Your task to perform on an android device: turn on priority inbox in the gmail app Image 0: 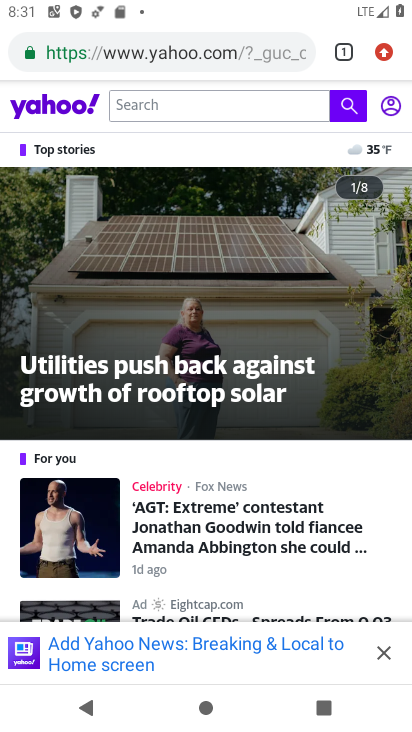
Step 0: press home button
Your task to perform on an android device: turn on priority inbox in the gmail app Image 1: 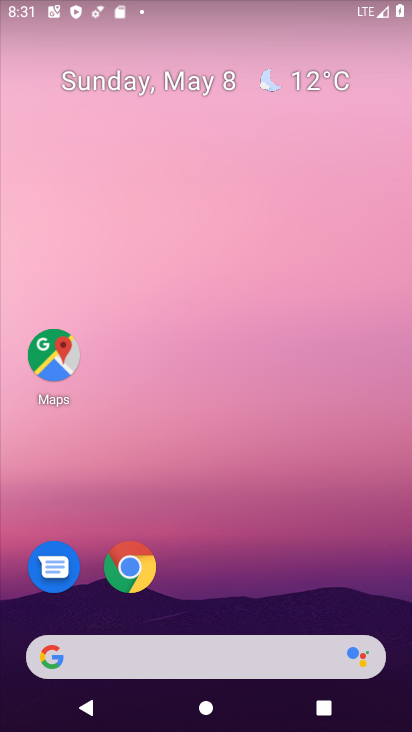
Step 1: drag from (165, 638) to (150, 82)
Your task to perform on an android device: turn on priority inbox in the gmail app Image 2: 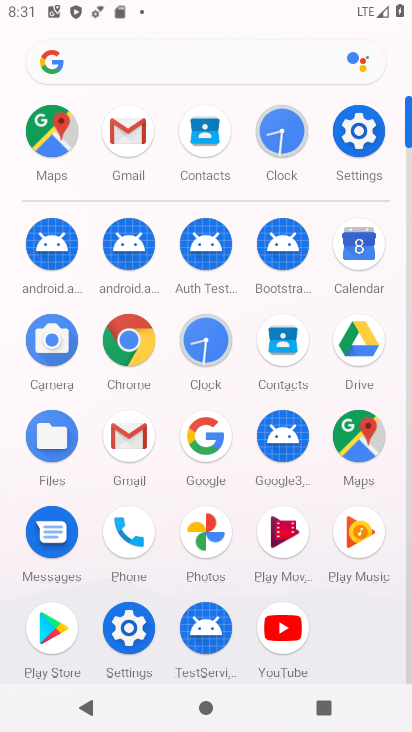
Step 2: click (128, 447)
Your task to perform on an android device: turn on priority inbox in the gmail app Image 3: 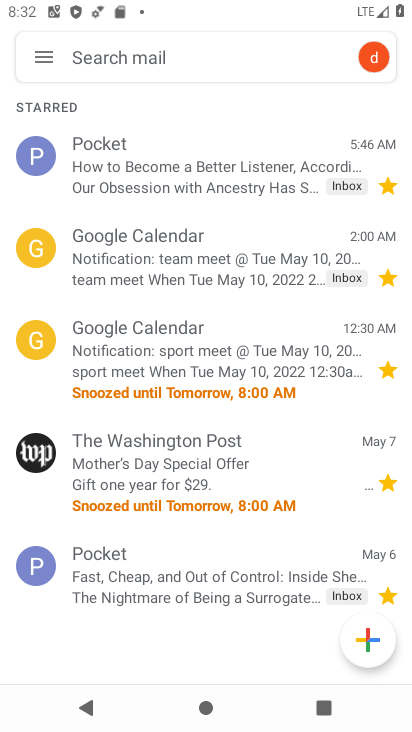
Step 3: click (34, 61)
Your task to perform on an android device: turn on priority inbox in the gmail app Image 4: 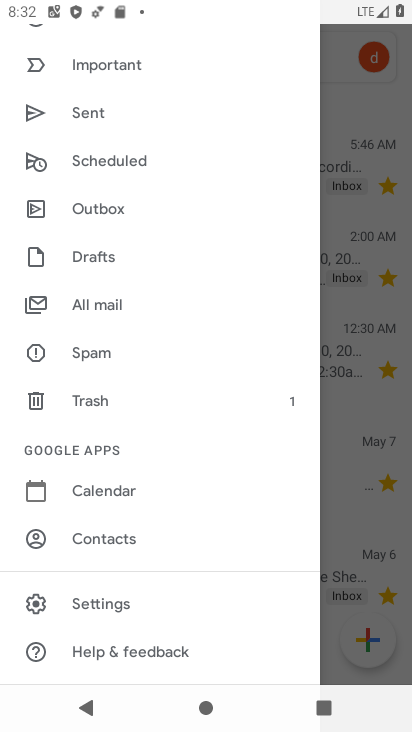
Step 4: click (116, 599)
Your task to perform on an android device: turn on priority inbox in the gmail app Image 5: 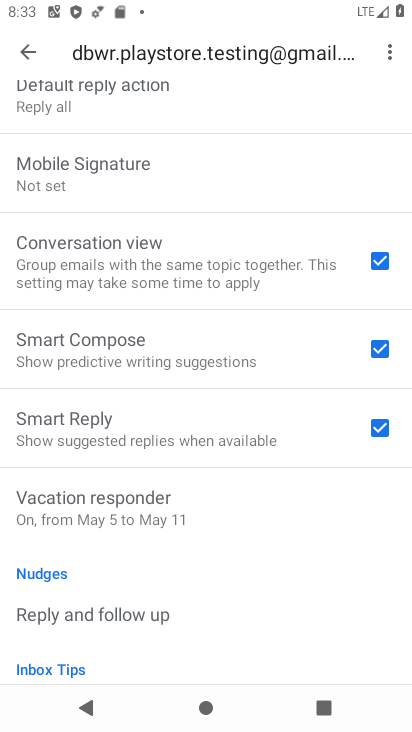
Step 5: drag from (192, 193) to (190, 634)
Your task to perform on an android device: turn on priority inbox in the gmail app Image 6: 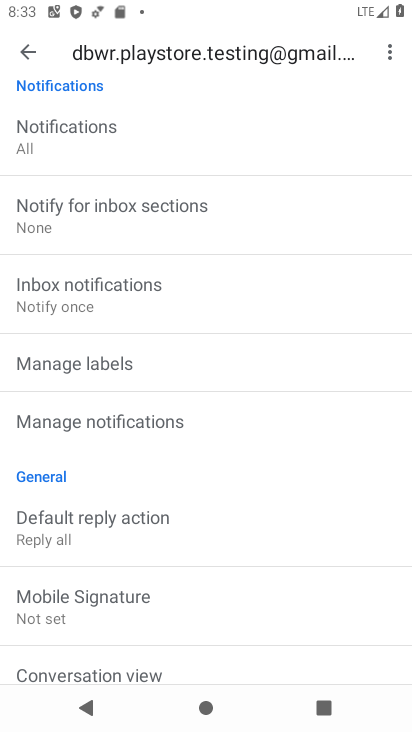
Step 6: drag from (89, 123) to (78, 520)
Your task to perform on an android device: turn on priority inbox in the gmail app Image 7: 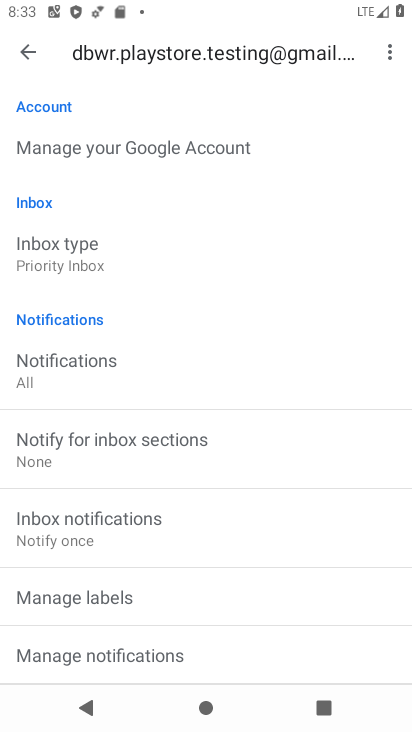
Step 7: click (57, 260)
Your task to perform on an android device: turn on priority inbox in the gmail app Image 8: 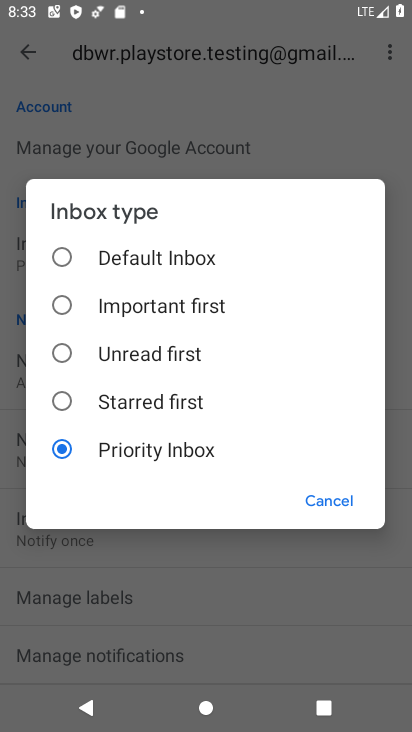
Step 8: click (153, 460)
Your task to perform on an android device: turn on priority inbox in the gmail app Image 9: 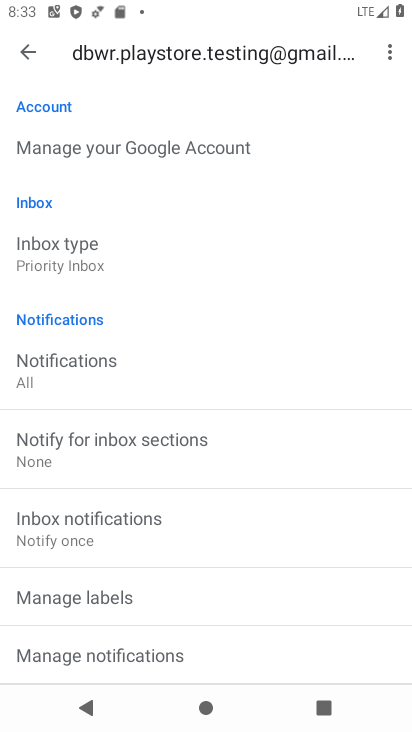
Step 9: task complete